Your task to perform on an android device: Open maps Image 0: 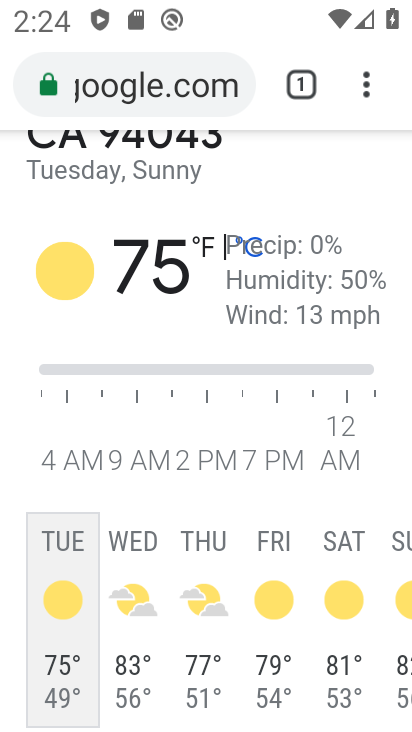
Step 0: press back button
Your task to perform on an android device: Open maps Image 1: 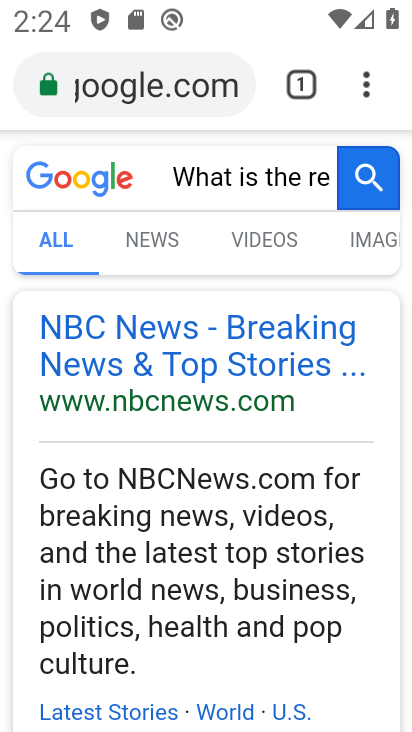
Step 1: press back button
Your task to perform on an android device: Open maps Image 2: 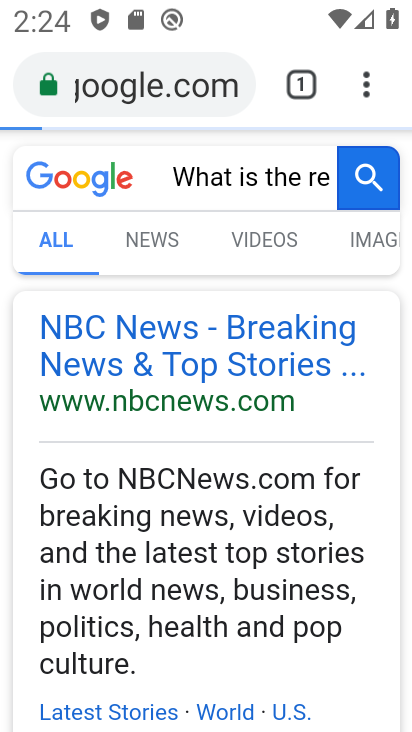
Step 2: press home button
Your task to perform on an android device: Open maps Image 3: 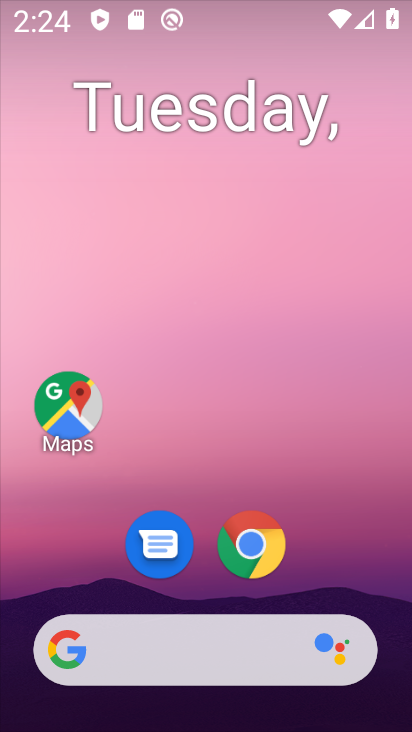
Step 3: drag from (329, 557) to (229, 38)
Your task to perform on an android device: Open maps Image 4: 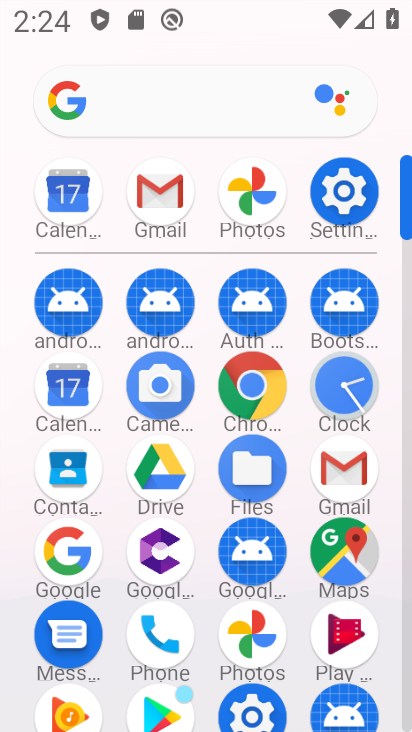
Step 4: drag from (18, 565) to (1, 209)
Your task to perform on an android device: Open maps Image 5: 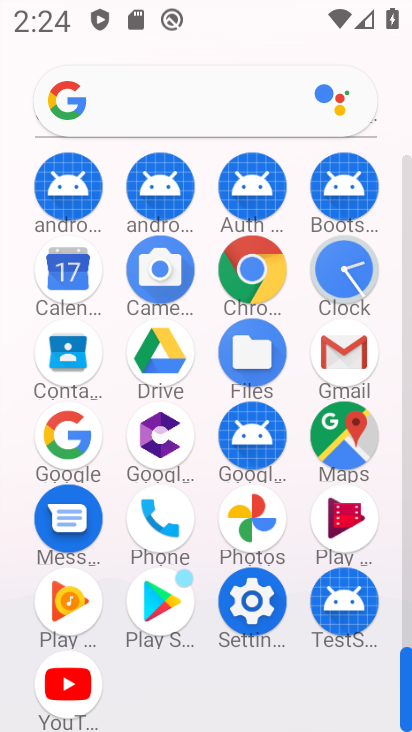
Step 5: click (341, 431)
Your task to perform on an android device: Open maps Image 6: 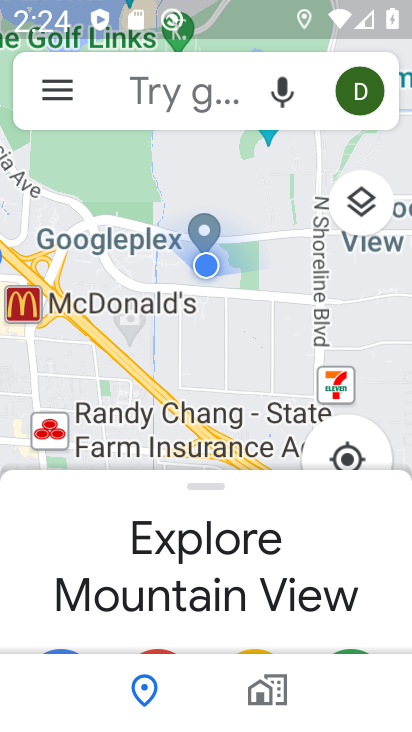
Step 6: task complete